Your task to perform on an android device: turn off improve location accuracy Image 0: 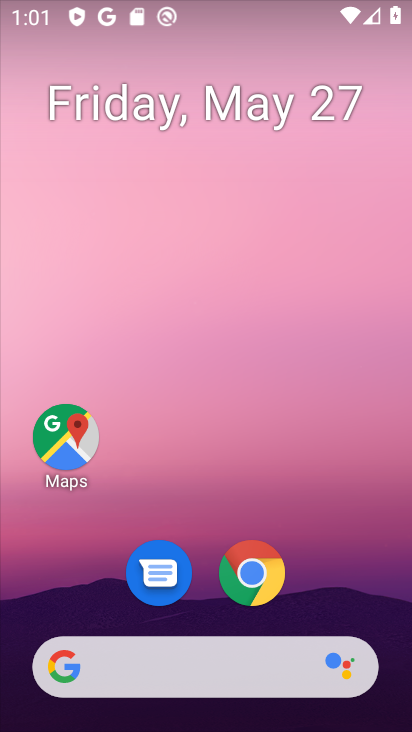
Step 0: drag from (248, 624) to (157, 22)
Your task to perform on an android device: turn off improve location accuracy Image 1: 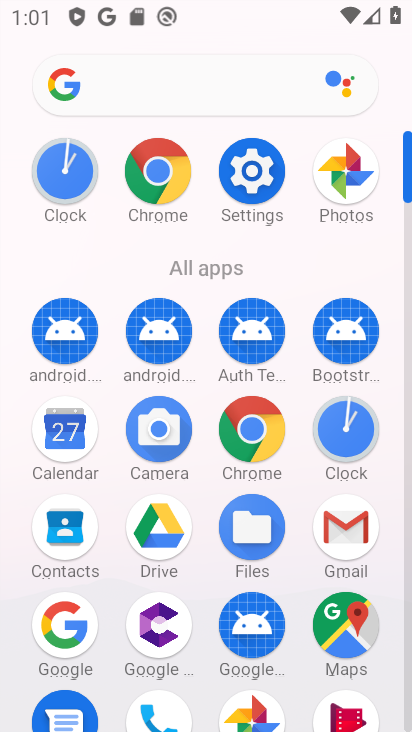
Step 1: click (248, 175)
Your task to perform on an android device: turn off improve location accuracy Image 2: 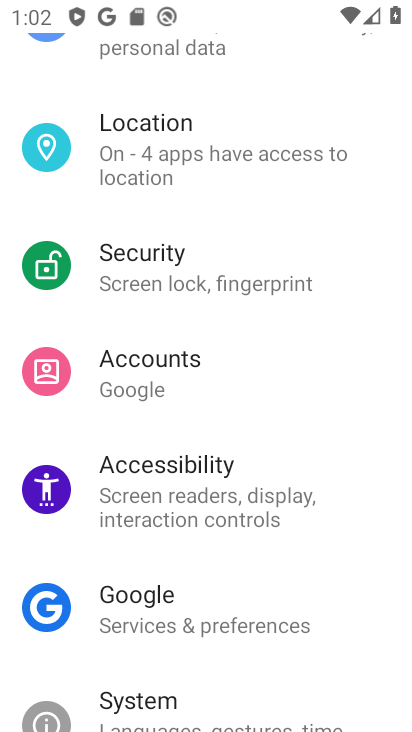
Step 2: click (133, 157)
Your task to perform on an android device: turn off improve location accuracy Image 3: 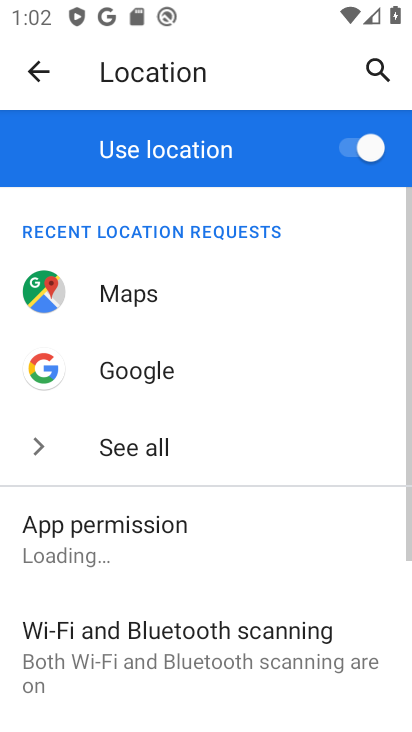
Step 3: drag from (180, 566) to (161, 279)
Your task to perform on an android device: turn off improve location accuracy Image 4: 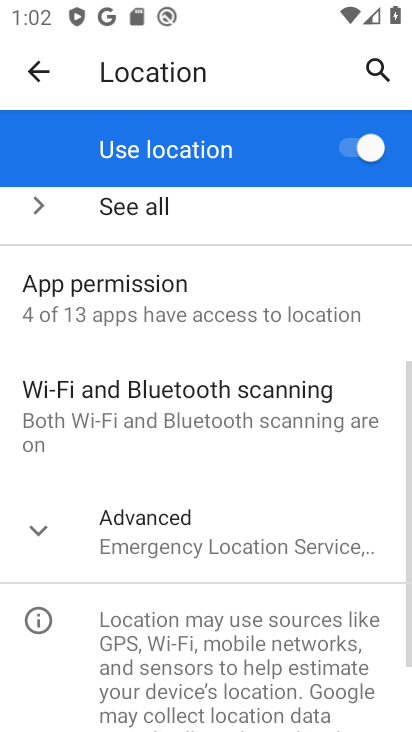
Step 4: click (201, 531)
Your task to perform on an android device: turn off improve location accuracy Image 5: 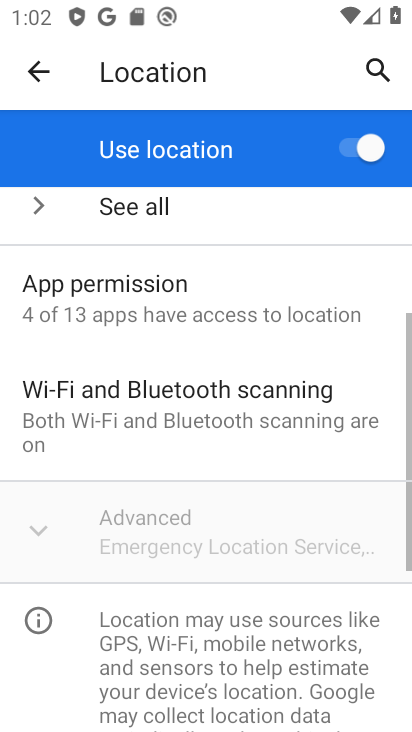
Step 5: drag from (201, 531) to (184, 84)
Your task to perform on an android device: turn off improve location accuracy Image 6: 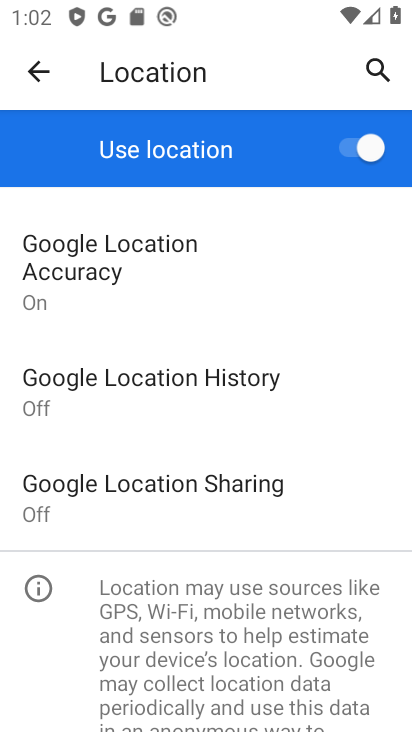
Step 6: drag from (139, 505) to (131, 423)
Your task to perform on an android device: turn off improve location accuracy Image 7: 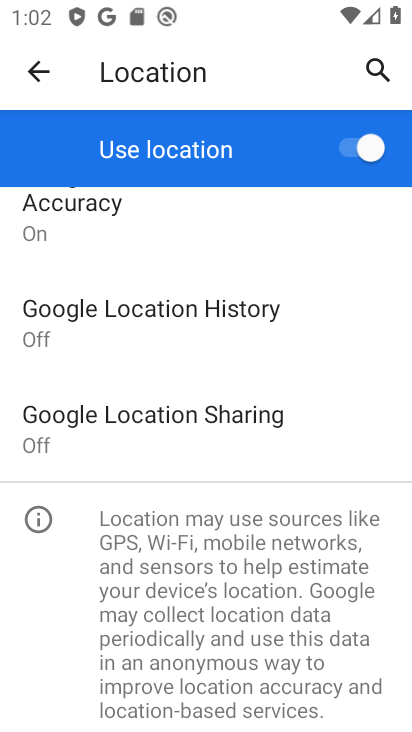
Step 7: click (98, 223)
Your task to perform on an android device: turn off improve location accuracy Image 8: 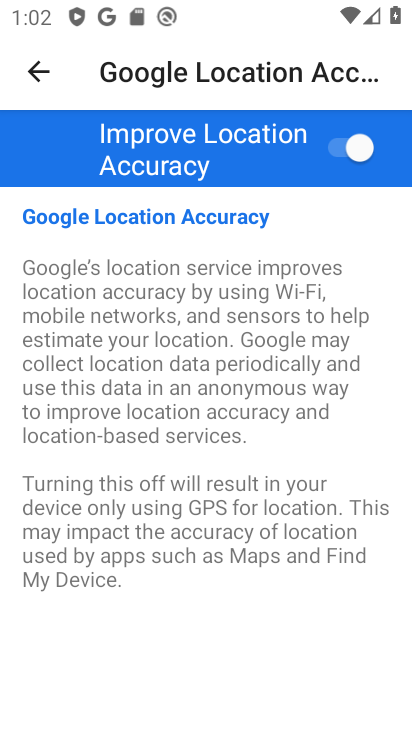
Step 8: click (344, 157)
Your task to perform on an android device: turn off improve location accuracy Image 9: 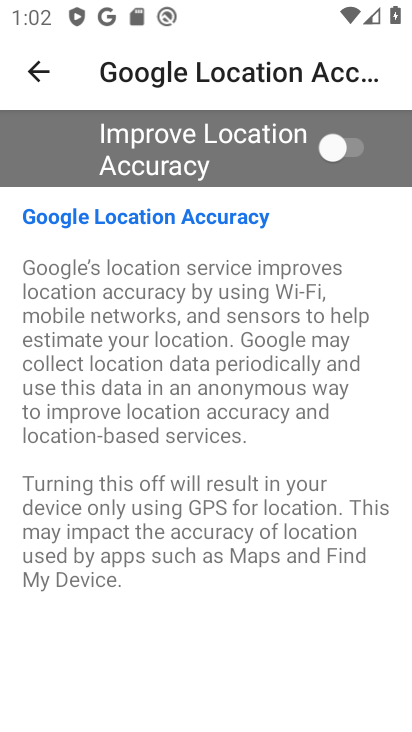
Step 9: task complete